Your task to perform on an android device: What is the recent news? Image 0: 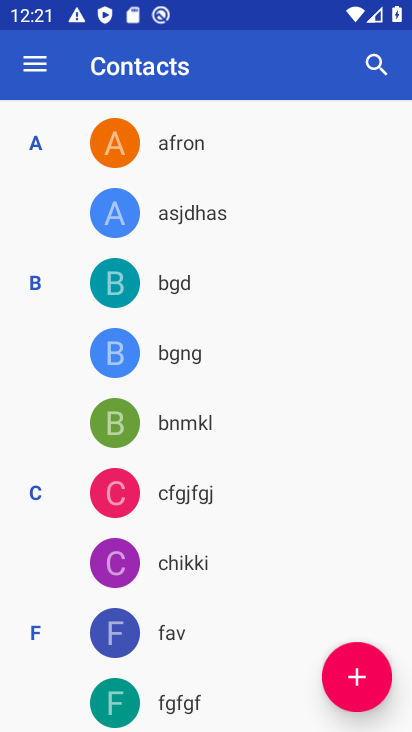
Step 0: press home button
Your task to perform on an android device: What is the recent news? Image 1: 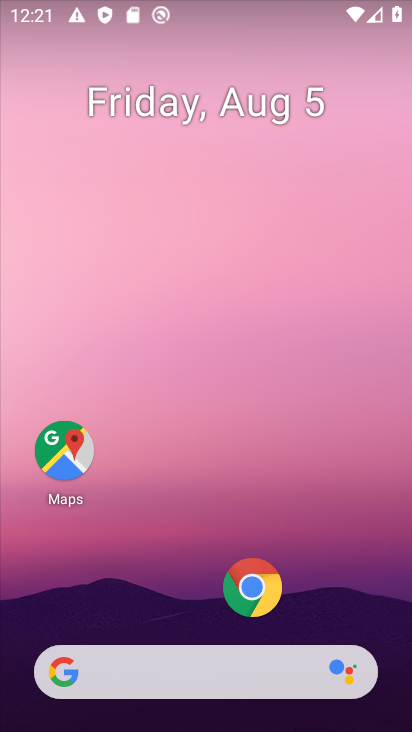
Step 1: click (160, 677)
Your task to perform on an android device: What is the recent news? Image 2: 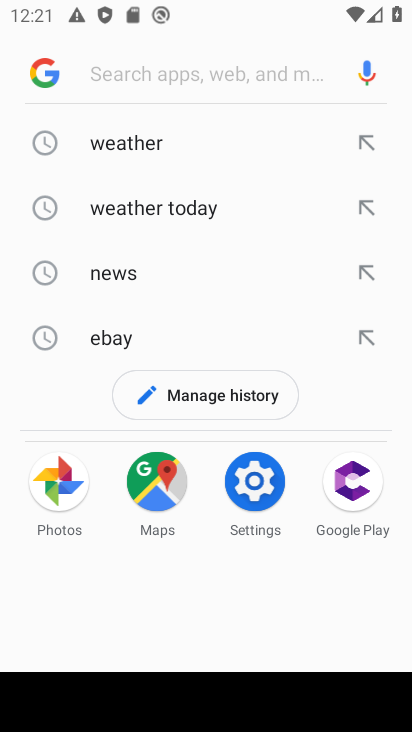
Step 2: type "recent news"
Your task to perform on an android device: What is the recent news? Image 3: 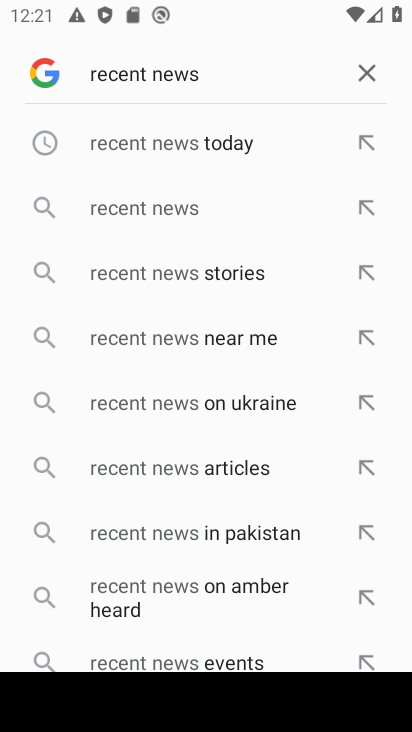
Step 3: click (190, 212)
Your task to perform on an android device: What is the recent news? Image 4: 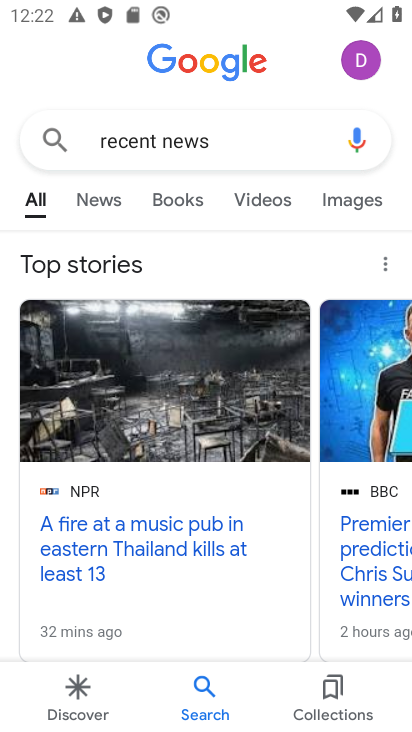
Step 4: task complete